Your task to perform on an android device: Open my contact list Image 0: 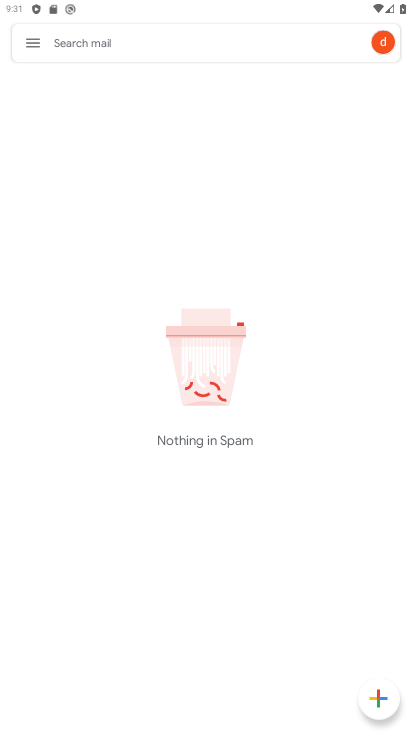
Step 0: click (33, 47)
Your task to perform on an android device: Open my contact list Image 1: 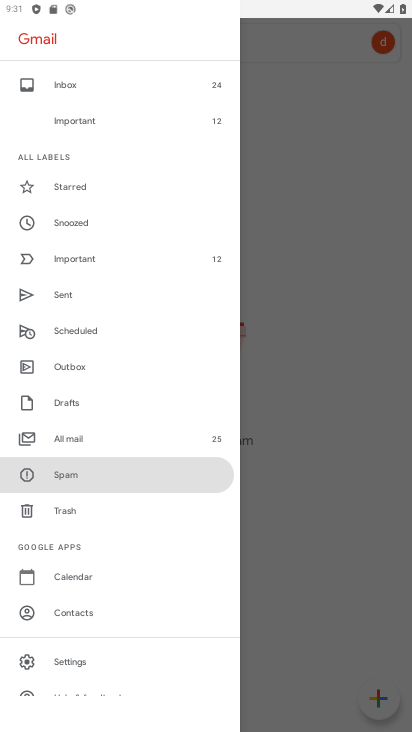
Step 1: press home button
Your task to perform on an android device: Open my contact list Image 2: 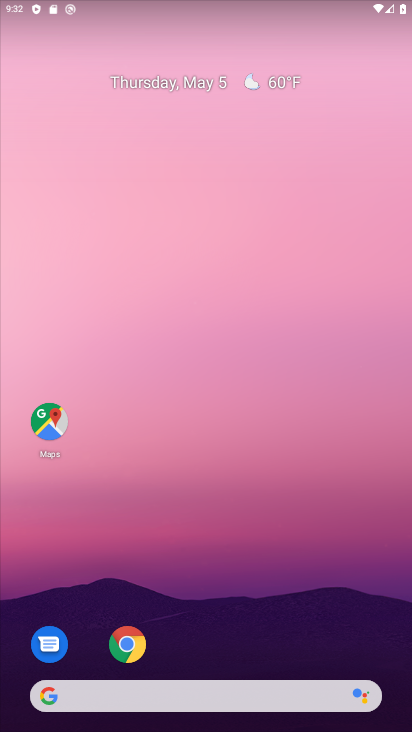
Step 2: drag from (251, 586) to (270, 93)
Your task to perform on an android device: Open my contact list Image 3: 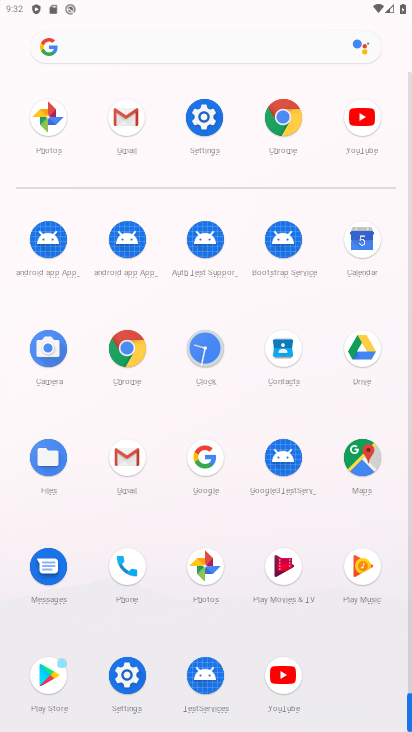
Step 3: click (286, 353)
Your task to perform on an android device: Open my contact list Image 4: 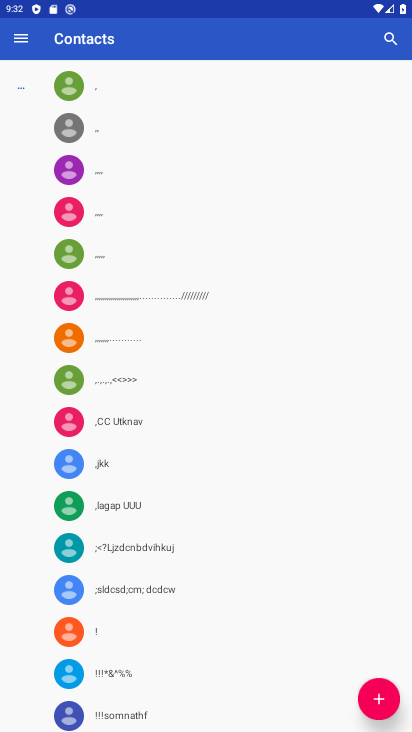
Step 4: task complete